Your task to perform on an android device: Go to Yahoo.com Image 0: 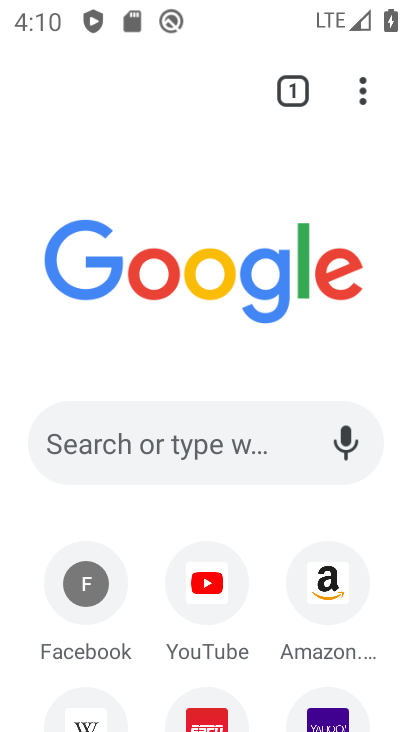
Step 0: drag from (265, 659) to (265, 198)
Your task to perform on an android device: Go to Yahoo.com Image 1: 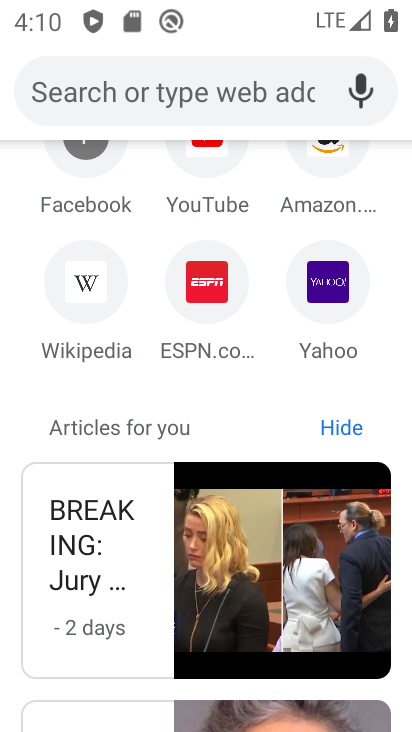
Step 1: click (327, 277)
Your task to perform on an android device: Go to Yahoo.com Image 2: 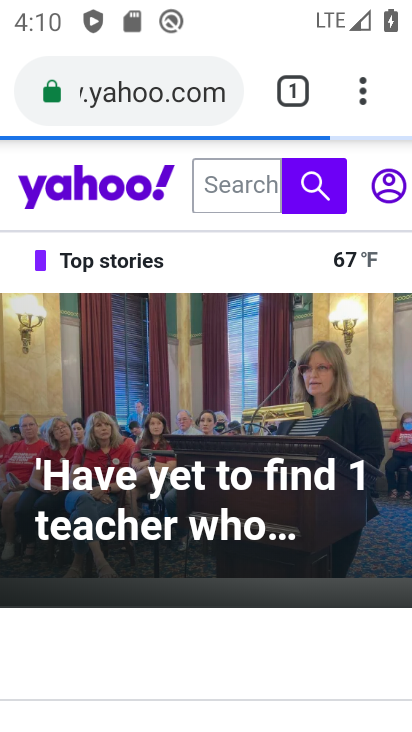
Step 2: drag from (190, 595) to (183, 147)
Your task to perform on an android device: Go to Yahoo.com Image 3: 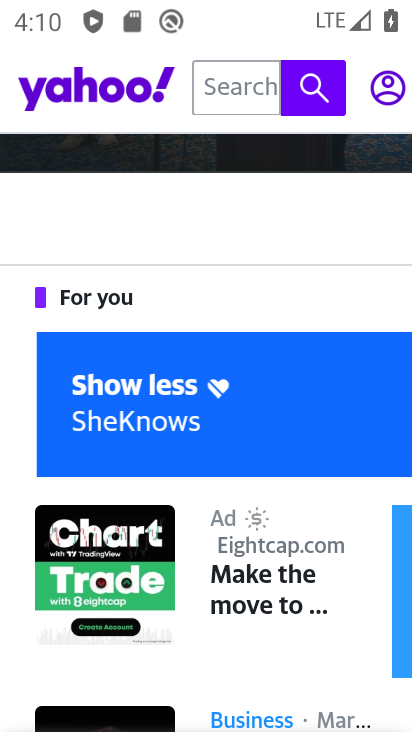
Step 3: drag from (233, 653) to (242, 170)
Your task to perform on an android device: Go to Yahoo.com Image 4: 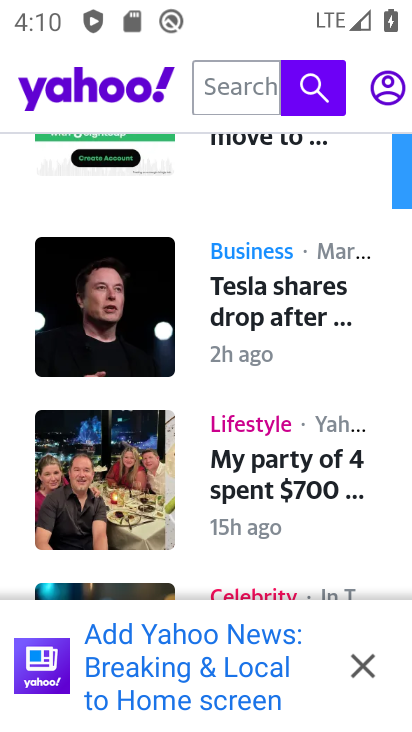
Step 4: click (357, 669)
Your task to perform on an android device: Go to Yahoo.com Image 5: 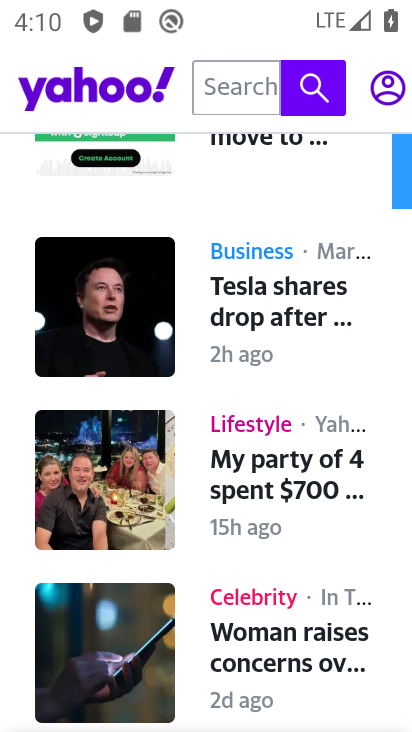
Step 5: task complete